Your task to perform on an android device: add a contact Image 0: 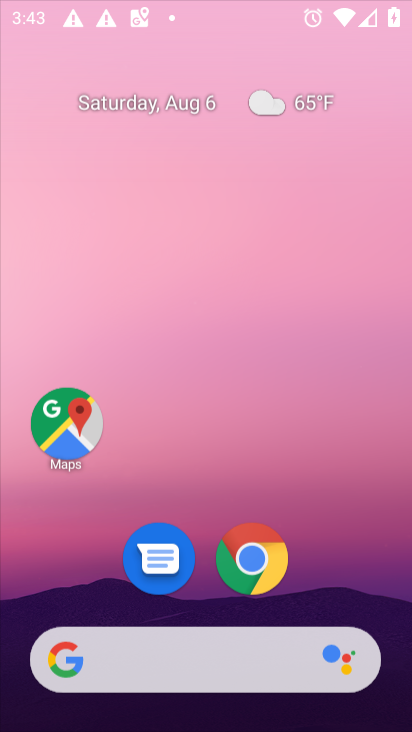
Step 0: click (215, 665)
Your task to perform on an android device: add a contact Image 1: 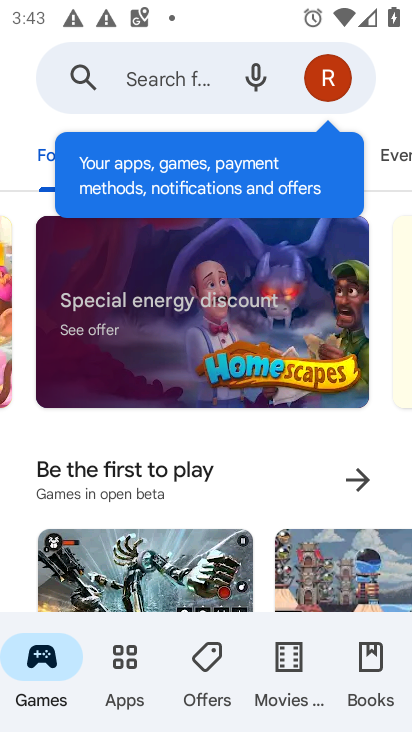
Step 1: press home button
Your task to perform on an android device: add a contact Image 2: 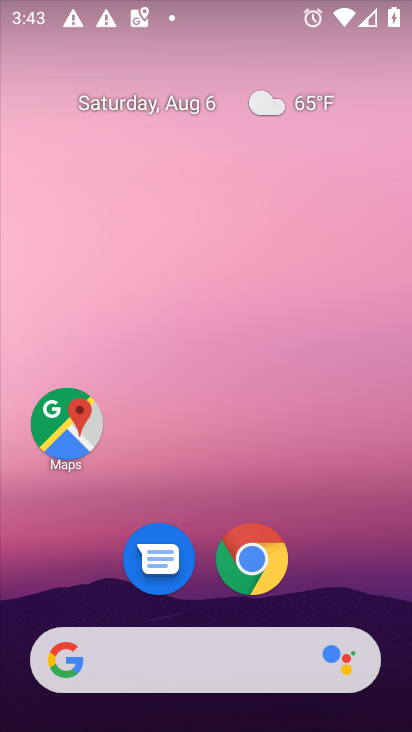
Step 2: drag from (327, 521) to (365, 78)
Your task to perform on an android device: add a contact Image 3: 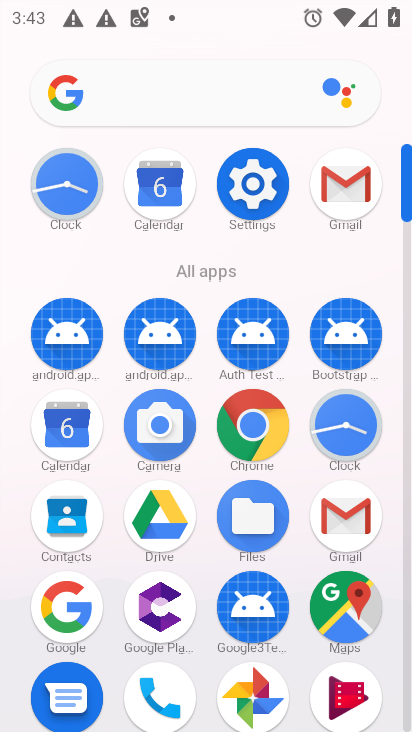
Step 3: click (69, 487)
Your task to perform on an android device: add a contact Image 4: 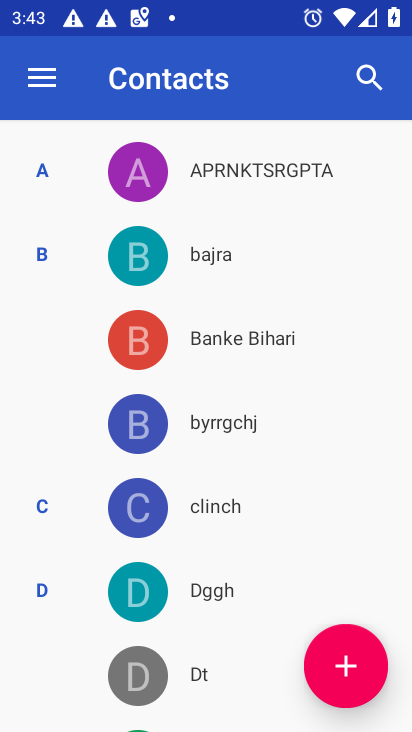
Step 4: click (334, 664)
Your task to perform on an android device: add a contact Image 5: 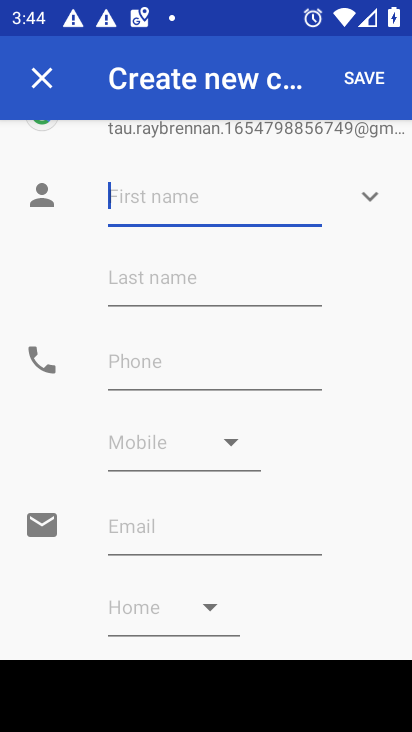
Step 5: type "Abba"
Your task to perform on an android device: add a contact Image 6: 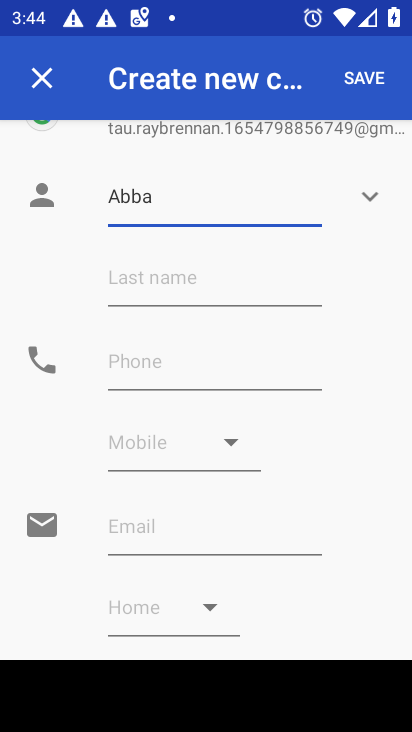
Step 6: click (188, 364)
Your task to perform on an android device: add a contact Image 7: 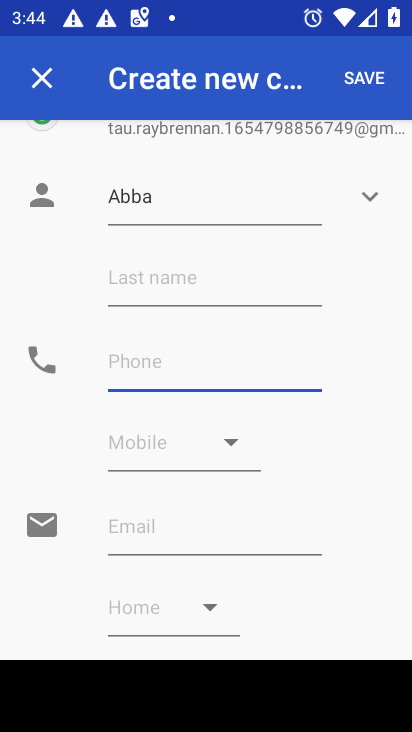
Step 7: type "9876543210"
Your task to perform on an android device: add a contact Image 8: 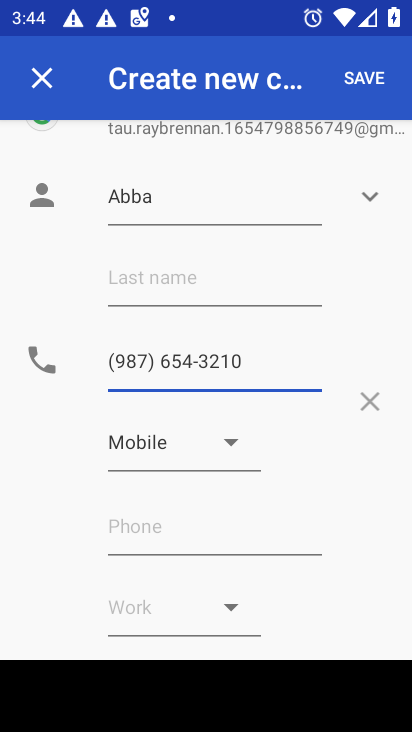
Step 8: click (362, 75)
Your task to perform on an android device: add a contact Image 9: 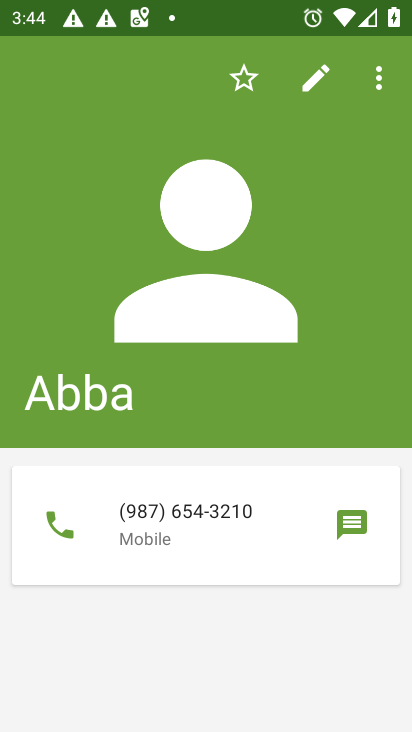
Step 9: task complete